Your task to perform on an android device: turn on wifi Image 0: 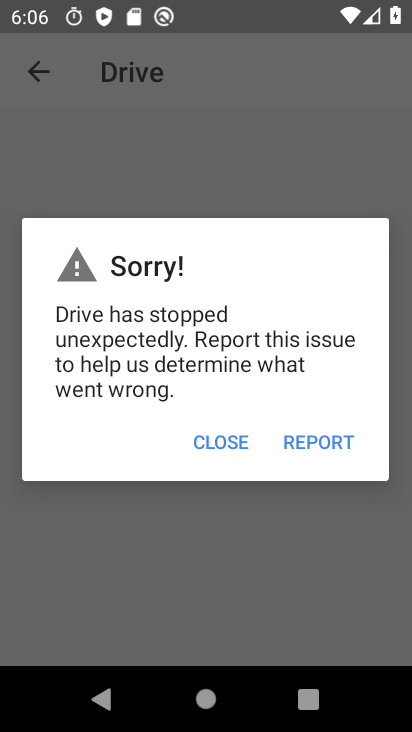
Step 0: click (230, 439)
Your task to perform on an android device: turn on wifi Image 1: 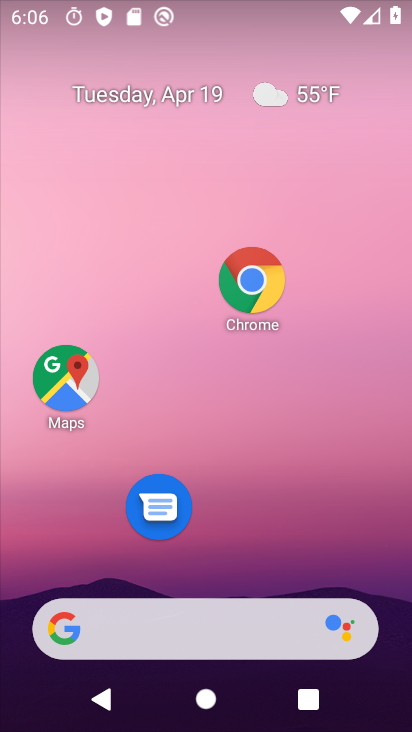
Step 1: drag from (187, 593) to (187, 210)
Your task to perform on an android device: turn on wifi Image 2: 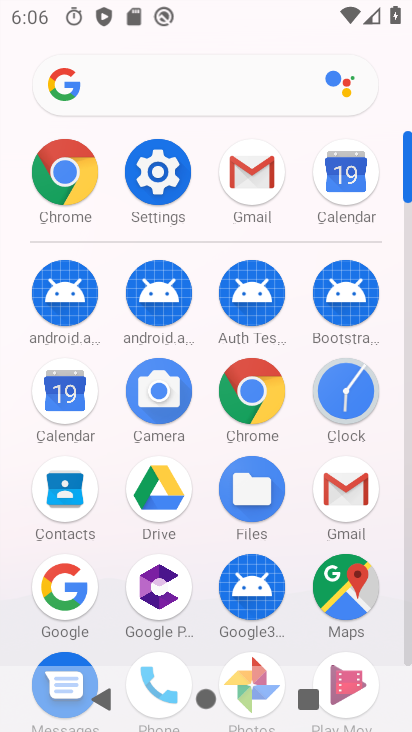
Step 2: click (167, 164)
Your task to perform on an android device: turn on wifi Image 3: 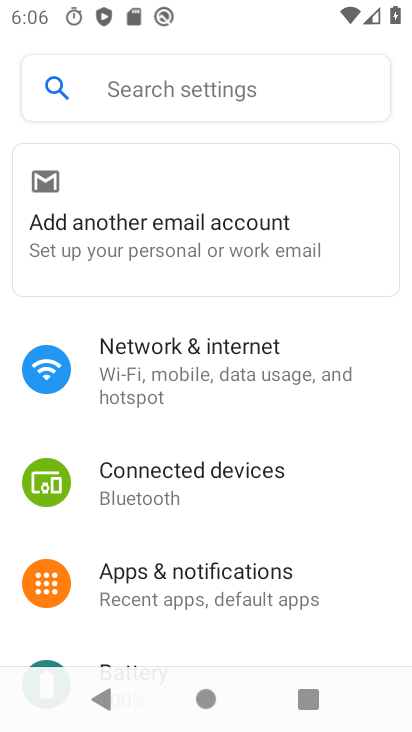
Step 3: click (168, 364)
Your task to perform on an android device: turn on wifi Image 4: 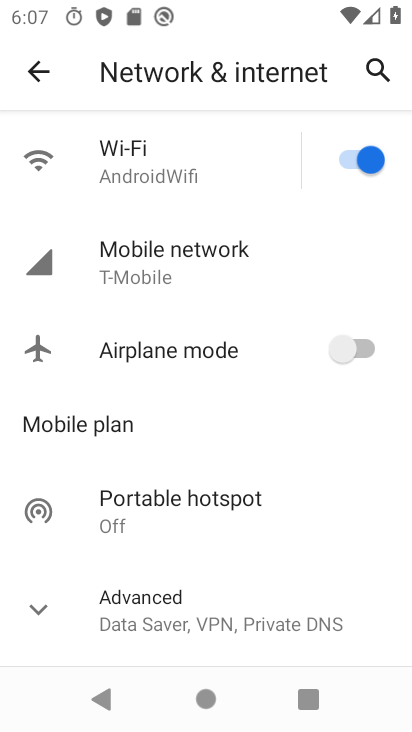
Step 4: task complete